Your task to perform on an android device: toggle wifi Image 0: 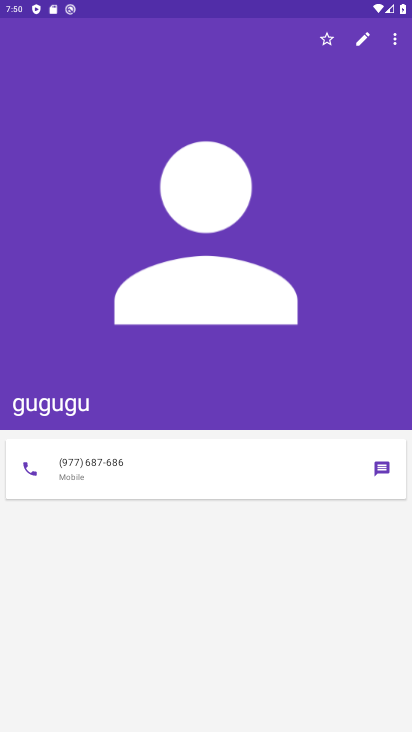
Step 0: press home button
Your task to perform on an android device: toggle wifi Image 1: 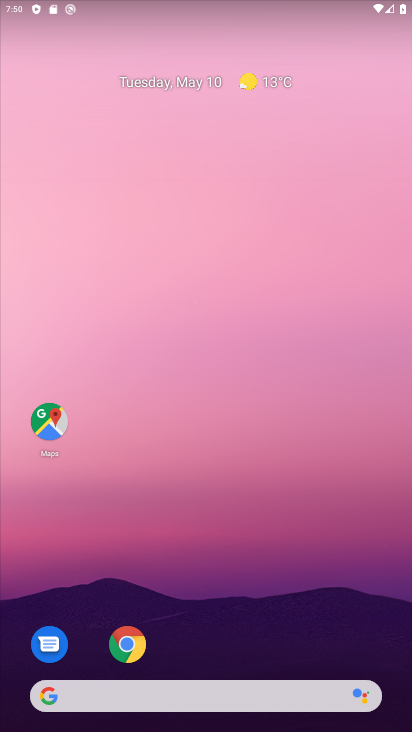
Step 1: drag from (223, 652) to (265, 41)
Your task to perform on an android device: toggle wifi Image 2: 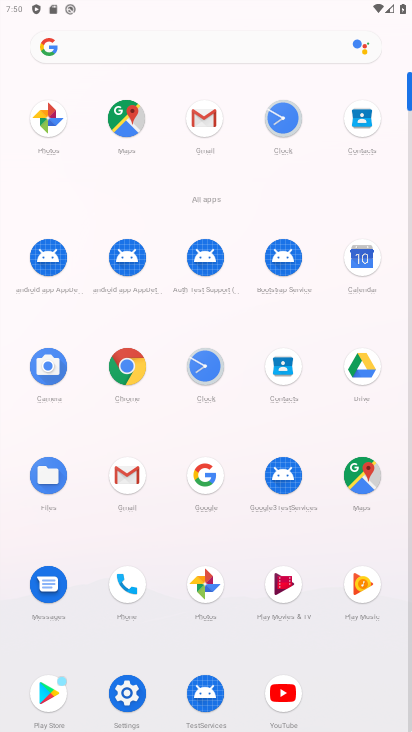
Step 2: click (133, 692)
Your task to perform on an android device: toggle wifi Image 3: 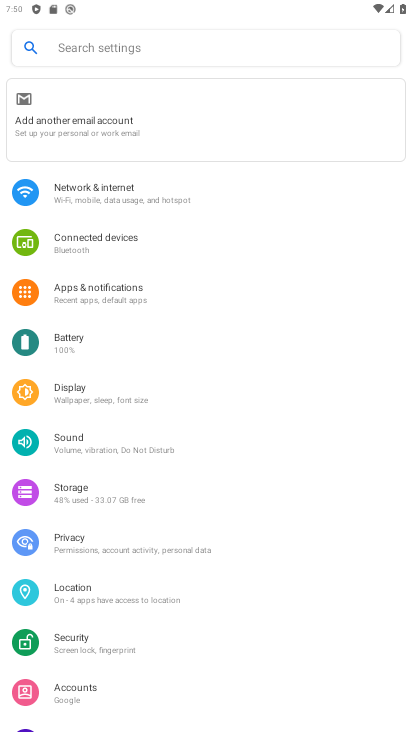
Step 3: click (212, 188)
Your task to perform on an android device: toggle wifi Image 4: 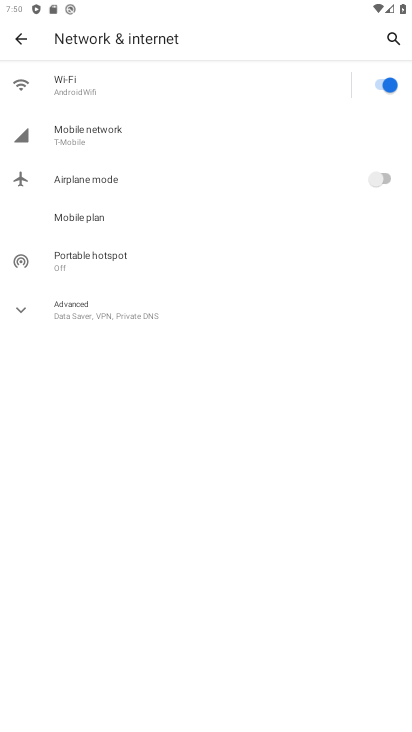
Step 4: click (384, 86)
Your task to perform on an android device: toggle wifi Image 5: 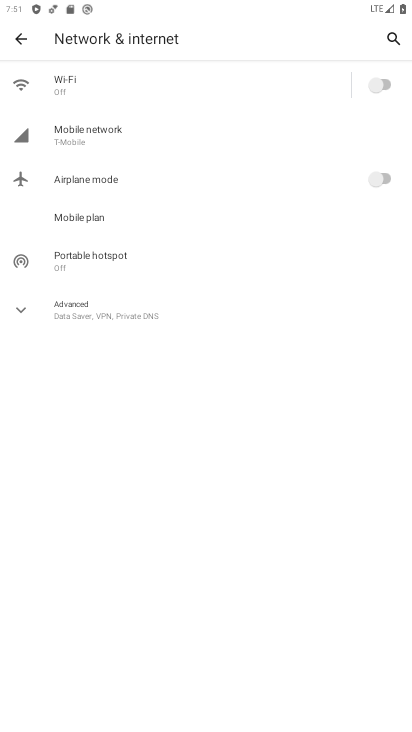
Step 5: task complete